Your task to perform on an android device: Go to notification settings Image 0: 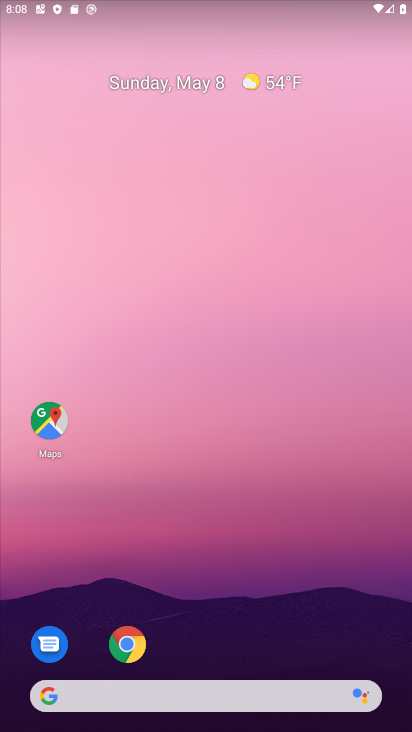
Step 0: drag from (189, 658) to (276, 135)
Your task to perform on an android device: Go to notification settings Image 1: 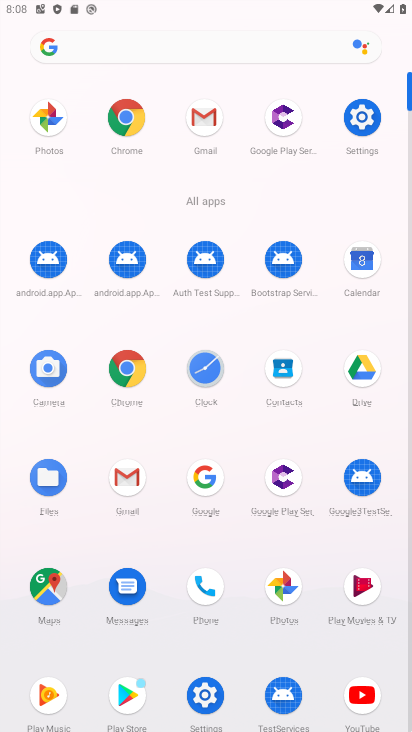
Step 1: drag from (246, 668) to (269, 262)
Your task to perform on an android device: Go to notification settings Image 2: 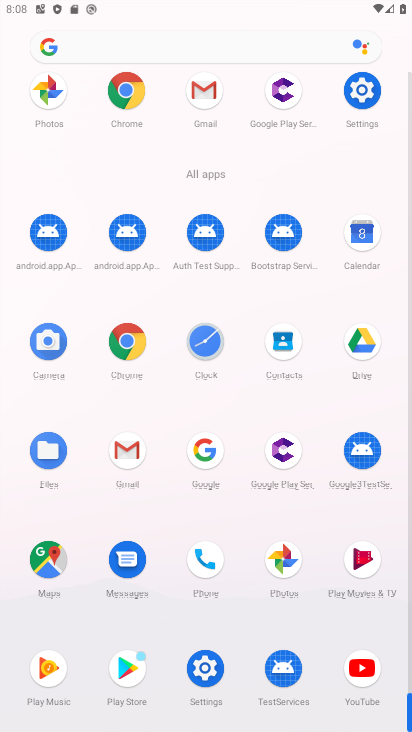
Step 2: click (208, 661)
Your task to perform on an android device: Go to notification settings Image 3: 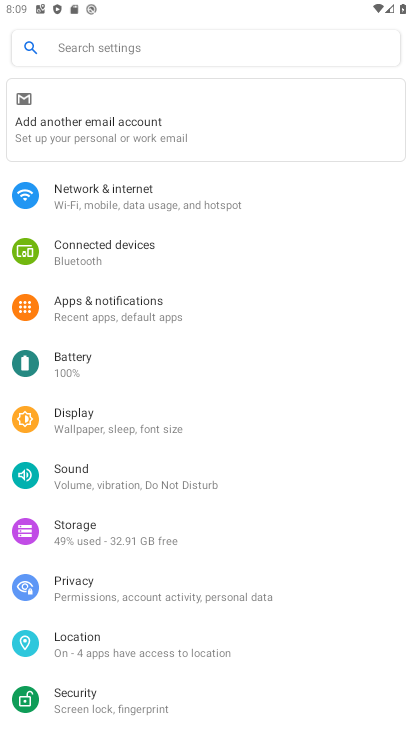
Step 3: click (128, 307)
Your task to perform on an android device: Go to notification settings Image 4: 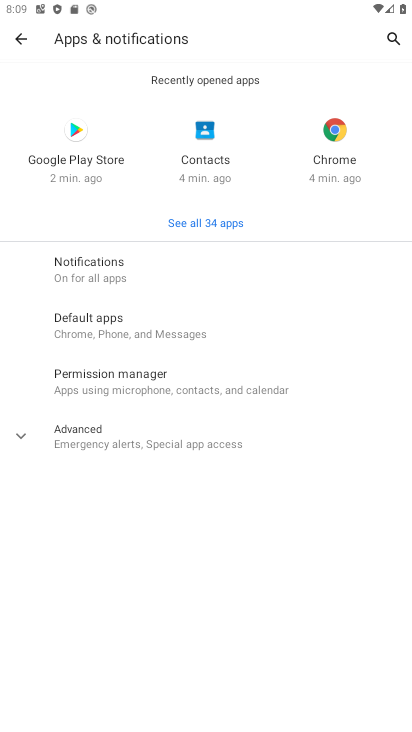
Step 4: click (189, 277)
Your task to perform on an android device: Go to notification settings Image 5: 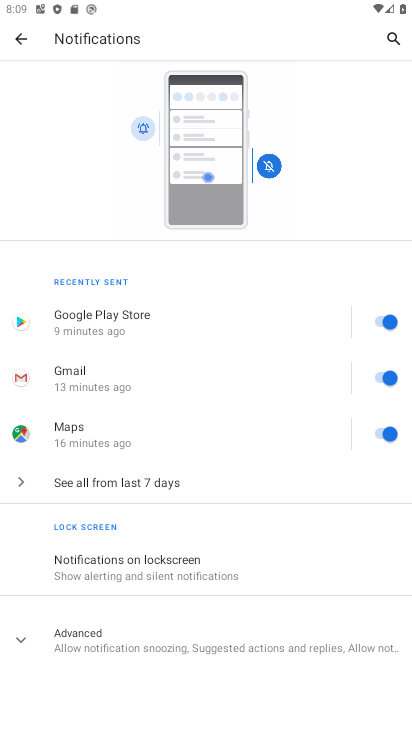
Step 5: drag from (229, 587) to (258, 193)
Your task to perform on an android device: Go to notification settings Image 6: 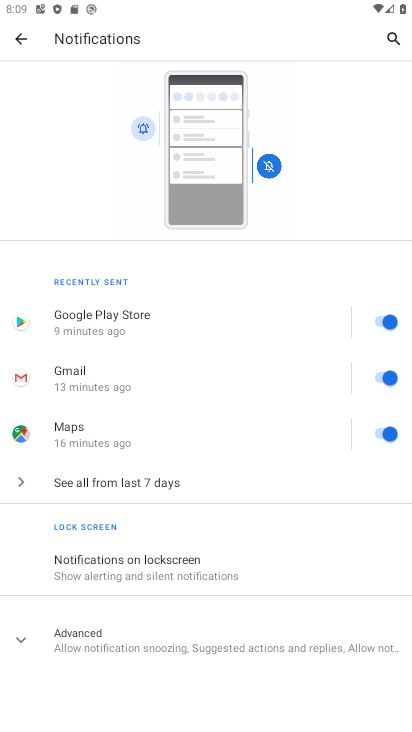
Step 6: drag from (173, 623) to (272, 267)
Your task to perform on an android device: Go to notification settings Image 7: 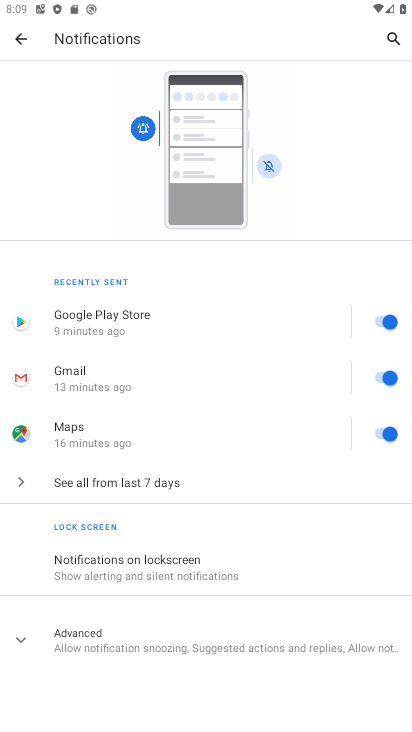
Step 7: click (370, 443)
Your task to perform on an android device: Go to notification settings Image 8: 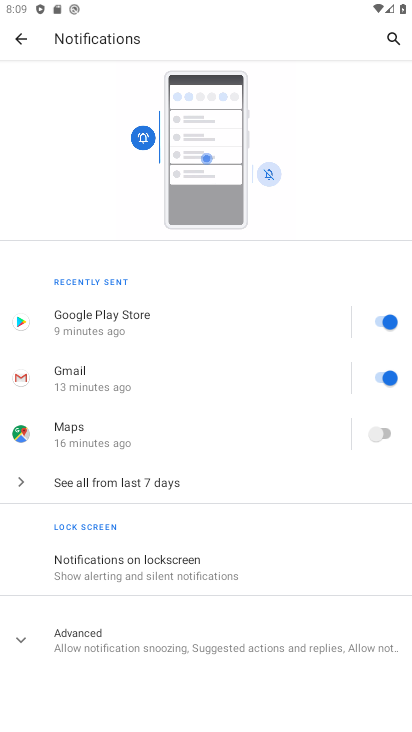
Step 8: task complete